Your task to perform on an android device: Open internet settings Image 0: 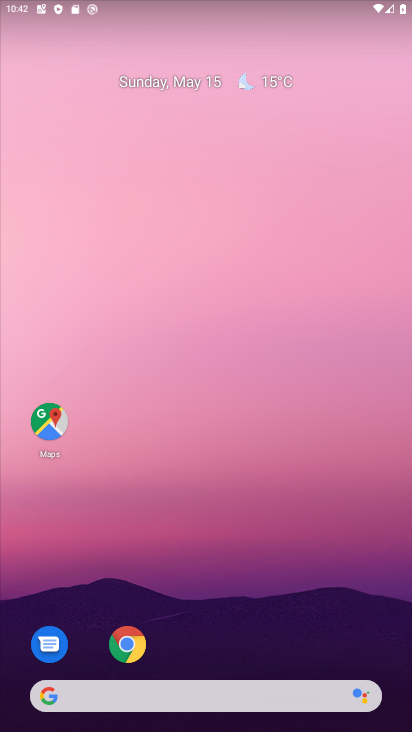
Step 0: drag from (268, 661) to (255, 174)
Your task to perform on an android device: Open internet settings Image 1: 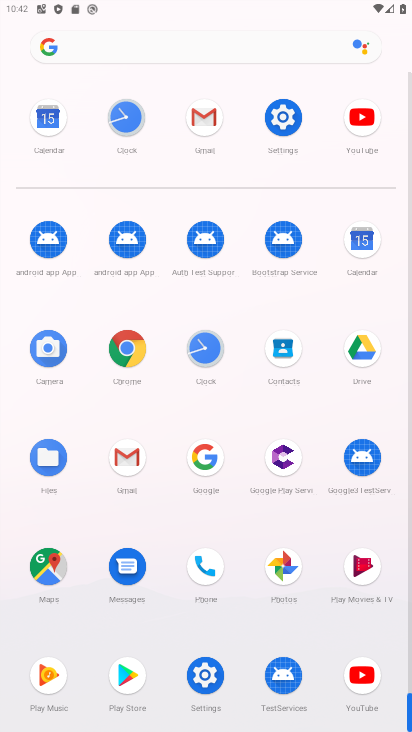
Step 1: click (279, 130)
Your task to perform on an android device: Open internet settings Image 2: 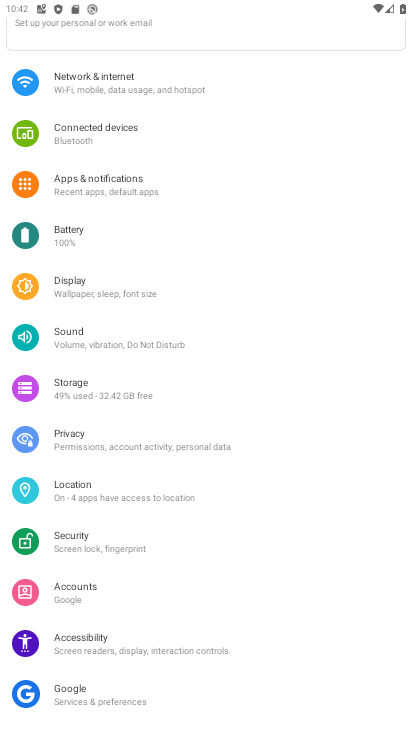
Step 2: click (213, 89)
Your task to perform on an android device: Open internet settings Image 3: 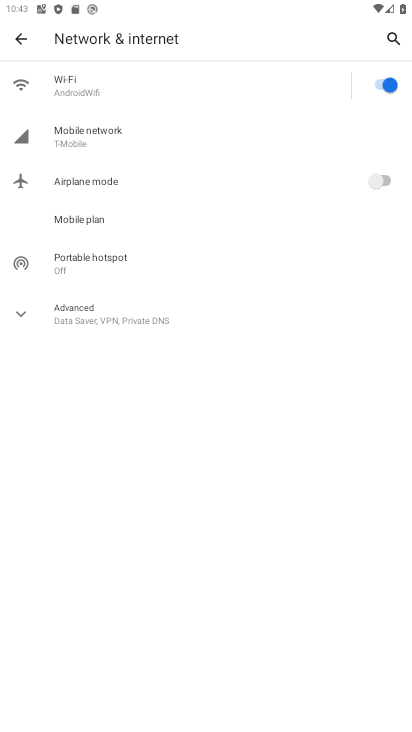
Step 3: task complete